Your task to perform on an android device: turn off improve location accuracy Image 0: 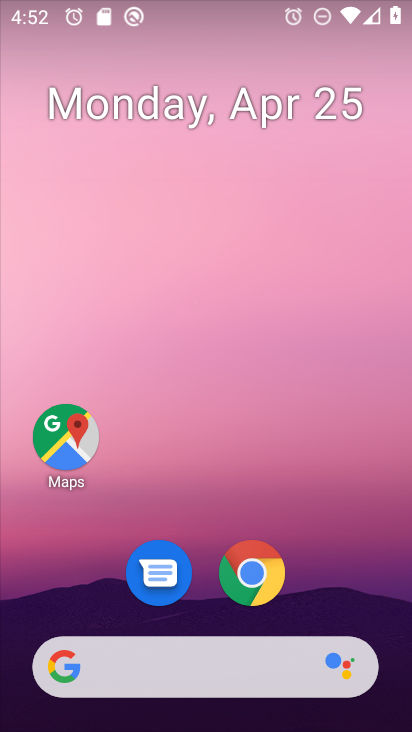
Step 0: drag from (365, 602) to (337, 6)
Your task to perform on an android device: turn off improve location accuracy Image 1: 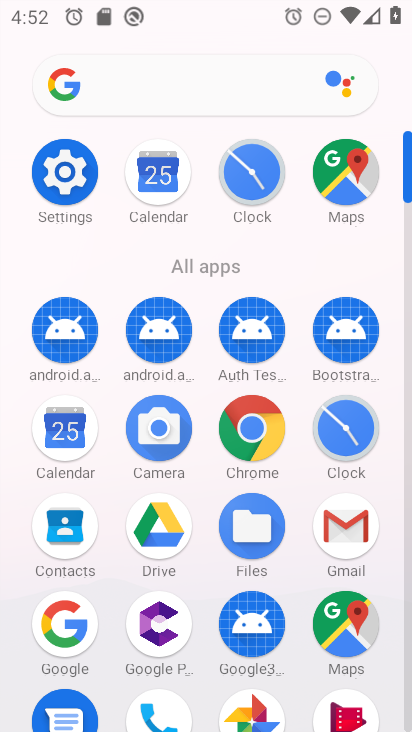
Step 1: click (58, 192)
Your task to perform on an android device: turn off improve location accuracy Image 2: 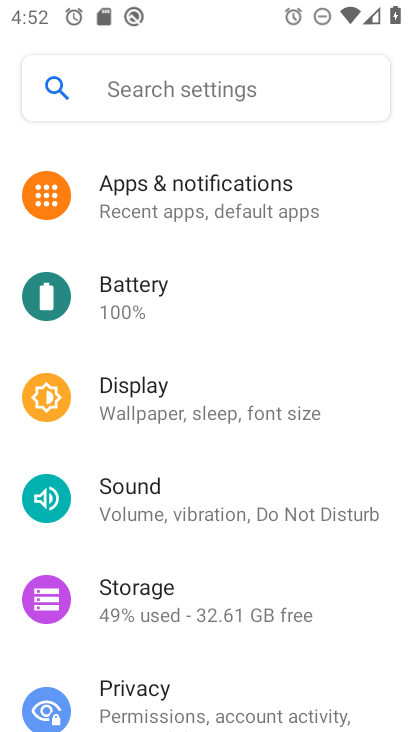
Step 2: drag from (337, 643) to (370, 275)
Your task to perform on an android device: turn off improve location accuracy Image 3: 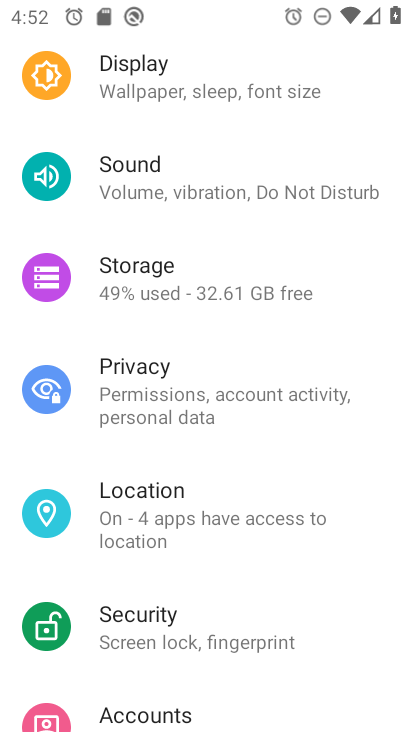
Step 3: click (154, 503)
Your task to perform on an android device: turn off improve location accuracy Image 4: 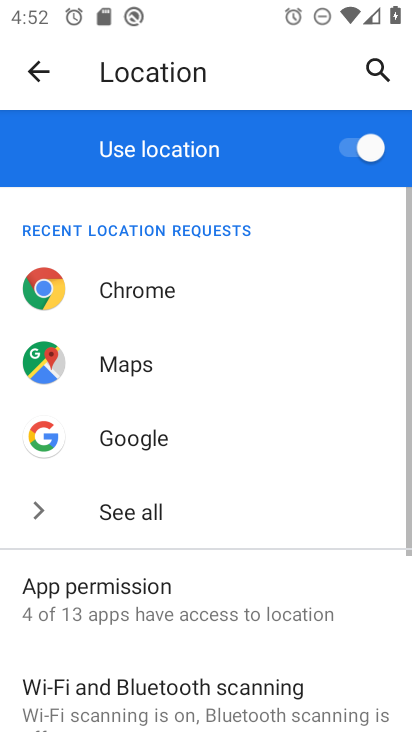
Step 4: drag from (157, 547) to (196, 112)
Your task to perform on an android device: turn off improve location accuracy Image 5: 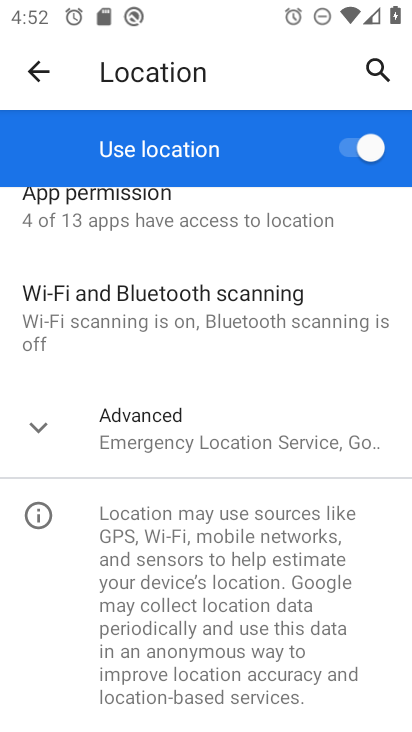
Step 5: click (38, 420)
Your task to perform on an android device: turn off improve location accuracy Image 6: 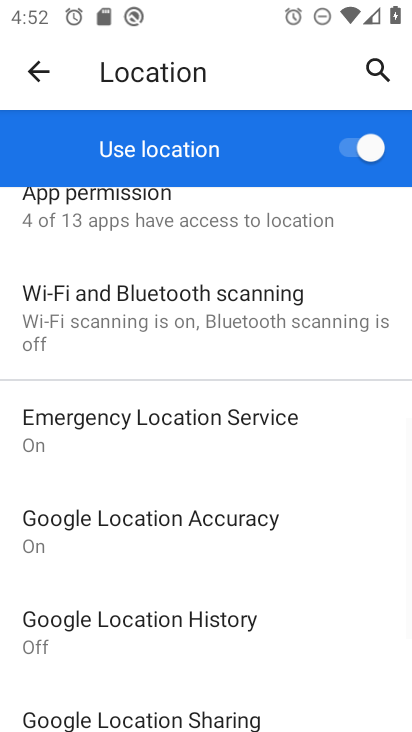
Step 6: click (180, 541)
Your task to perform on an android device: turn off improve location accuracy Image 7: 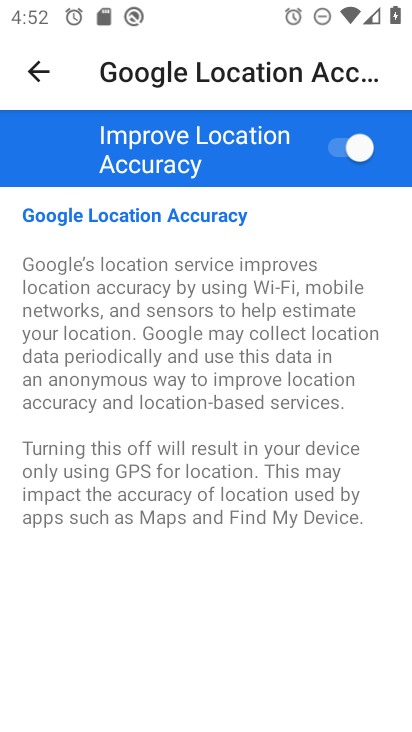
Step 7: task complete